Your task to perform on an android device: Go to accessibility settings Image 0: 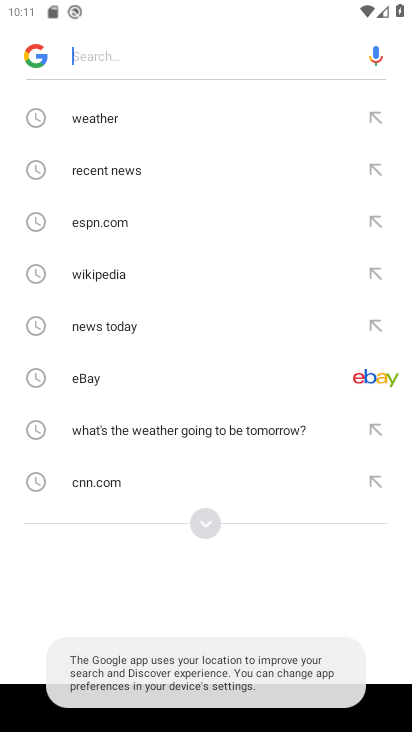
Step 0: press home button
Your task to perform on an android device: Go to accessibility settings Image 1: 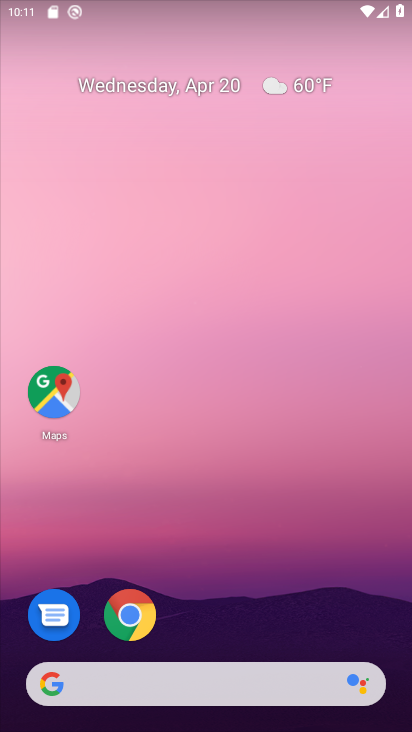
Step 1: drag from (356, 611) to (362, 148)
Your task to perform on an android device: Go to accessibility settings Image 2: 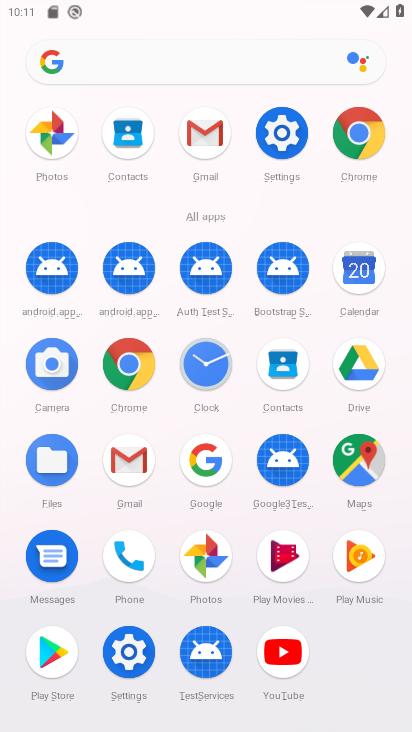
Step 2: click (139, 651)
Your task to perform on an android device: Go to accessibility settings Image 3: 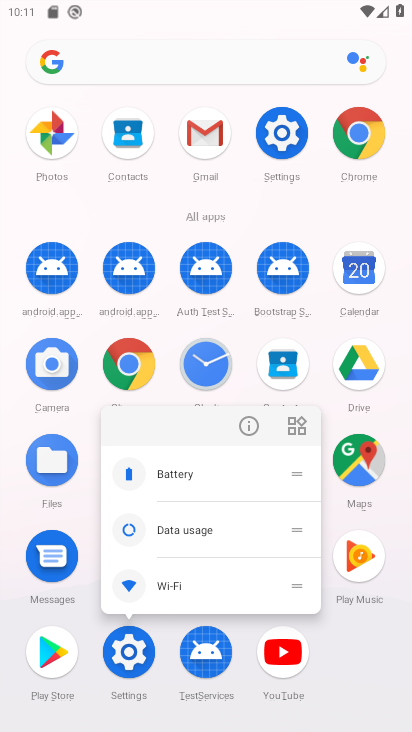
Step 3: click (101, 654)
Your task to perform on an android device: Go to accessibility settings Image 4: 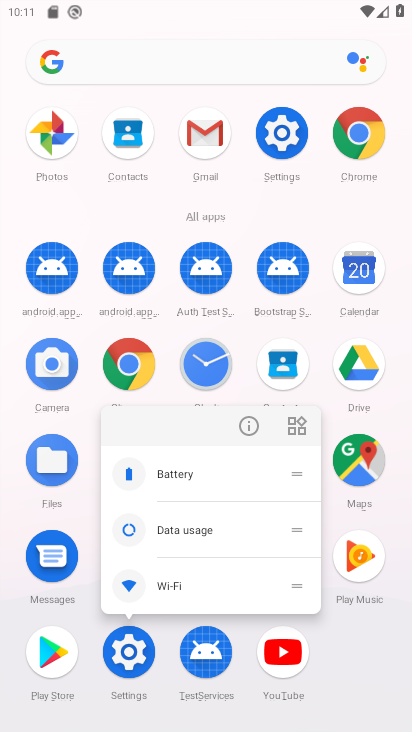
Step 4: click (101, 654)
Your task to perform on an android device: Go to accessibility settings Image 5: 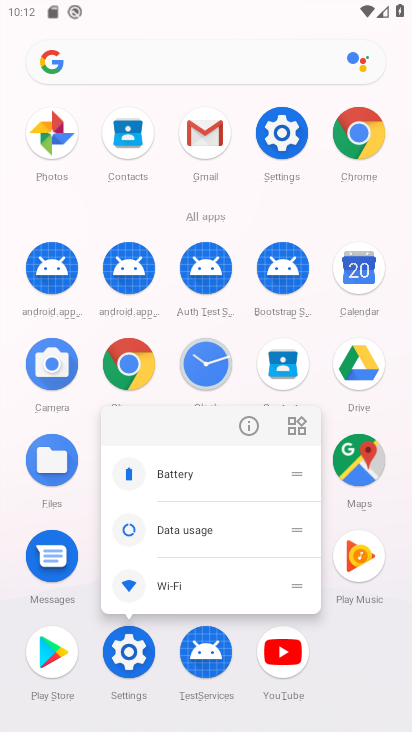
Step 5: click (114, 661)
Your task to perform on an android device: Go to accessibility settings Image 6: 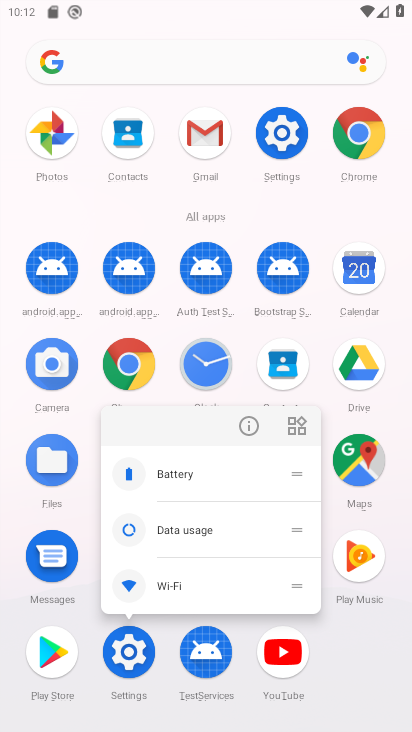
Step 6: click (118, 657)
Your task to perform on an android device: Go to accessibility settings Image 7: 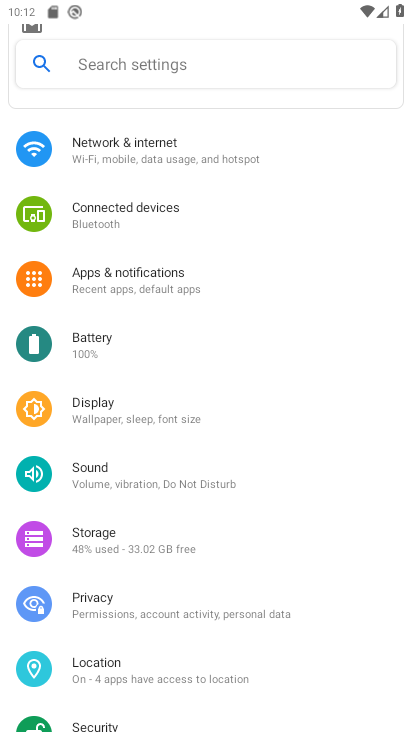
Step 7: drag from (332, 658) to (323, 333)
Your task to perform on an android device: Go to accessibility settings Image 8: 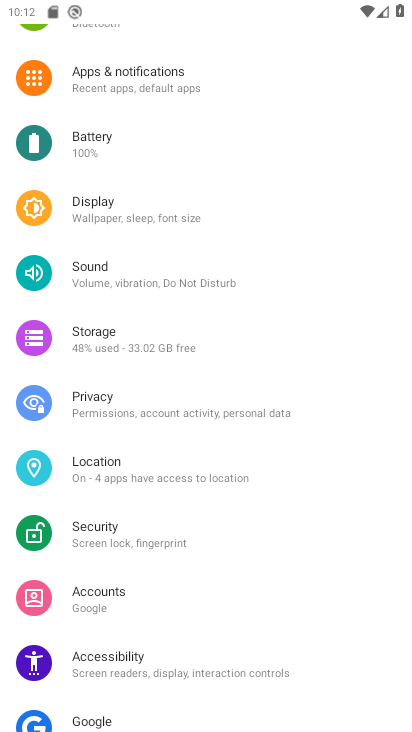
Step 8: click (133, 671)
Your task to perform on an android device: Go to accessibility settings Image 9: 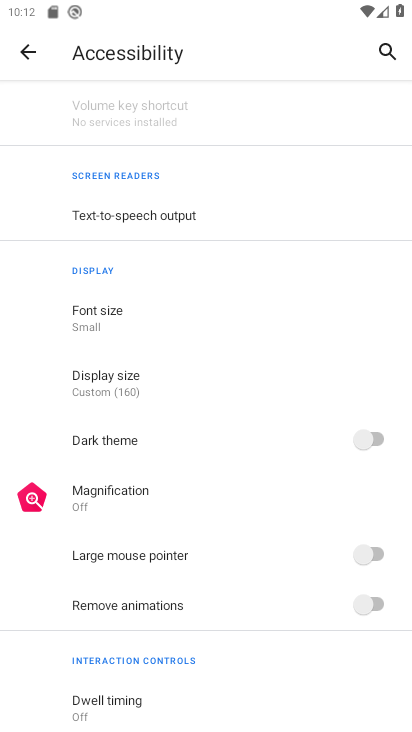
Step 9: task complete